Your task to perform on an android device: Open sound settings Image 0: 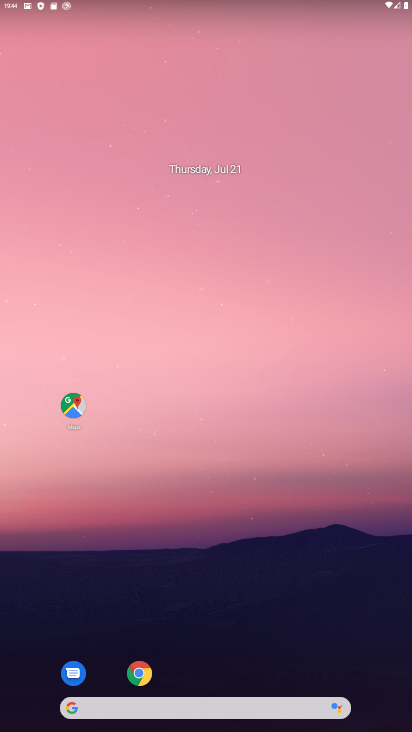
Step 0: drag from (301, 678) to (306, 133)
Your task to perform on an android device: Open sound settings Image 1: 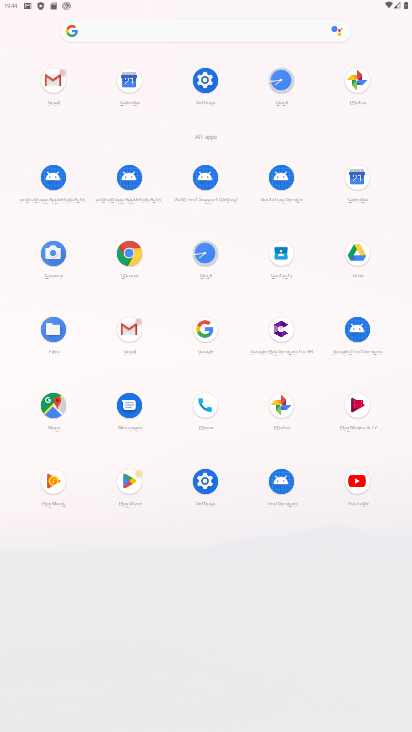
Step 1: click (201, 77)
Your task to perform on an android device: Open sound settings Image 2: 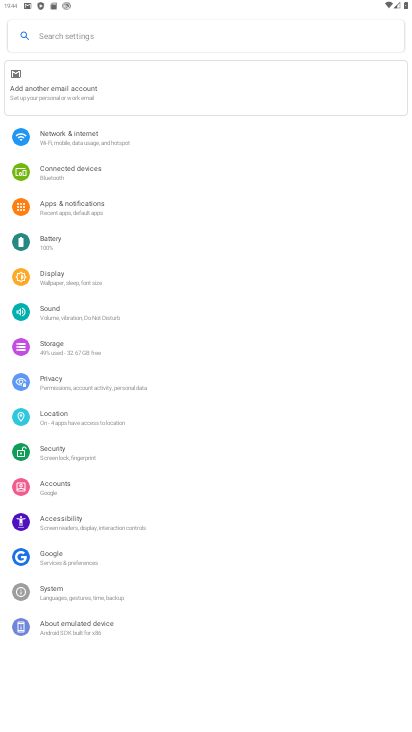
Step 2: click (90, 314)
Your task to perform on an android device: Open sound settings Image 3: 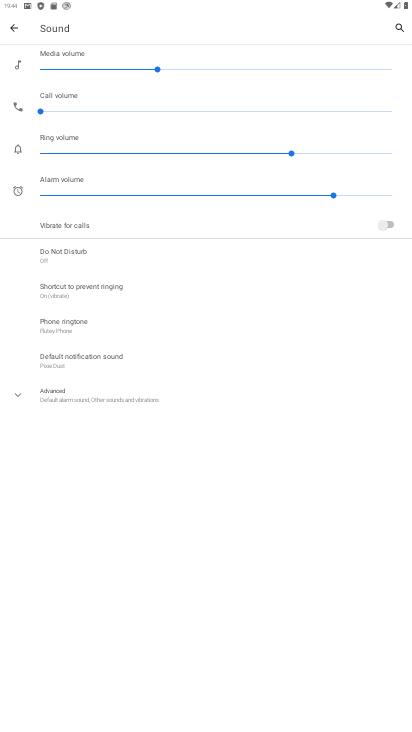
Step 3: task complete